Your task to perform on an android device: toggle location history Image 0: 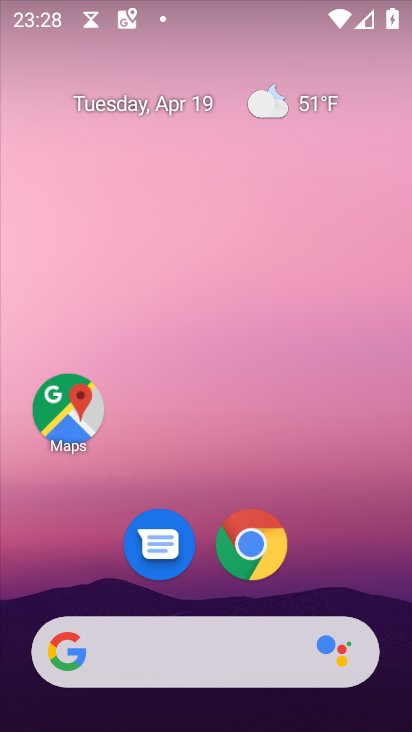
Step 0: drag from (324, 594) to (259, 48)
Your task to perform on an android device: toggle location history Image 1: 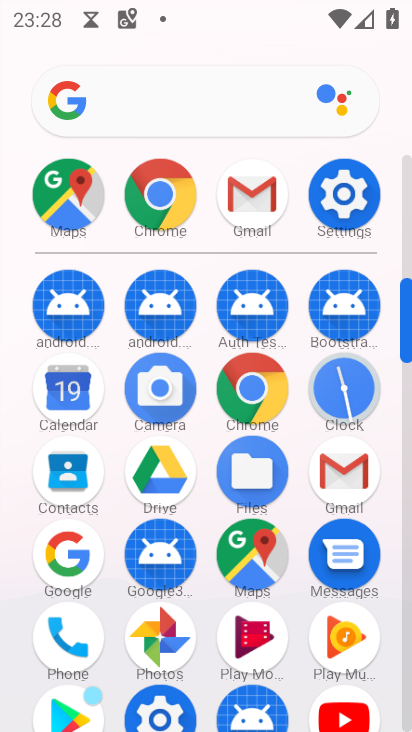
Step 1: click (342, 205)
Your task to perform on an android device: toggle location history Image 2: 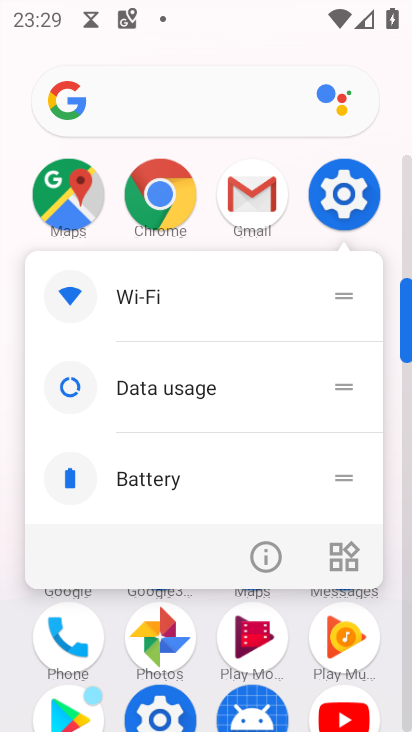
Step 2: click (343, 204)
Your task to perform on an android device: toggle location history Image 3: 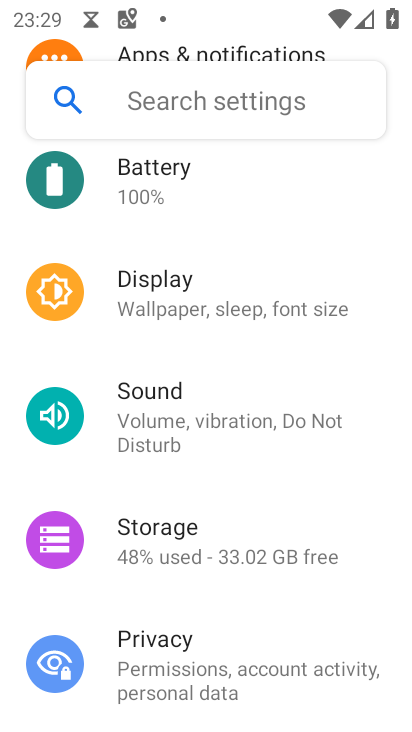
Step 3: drag from (231, 334) to (270, 430)
Your task to perform on an android device: toggle location history Image 4: 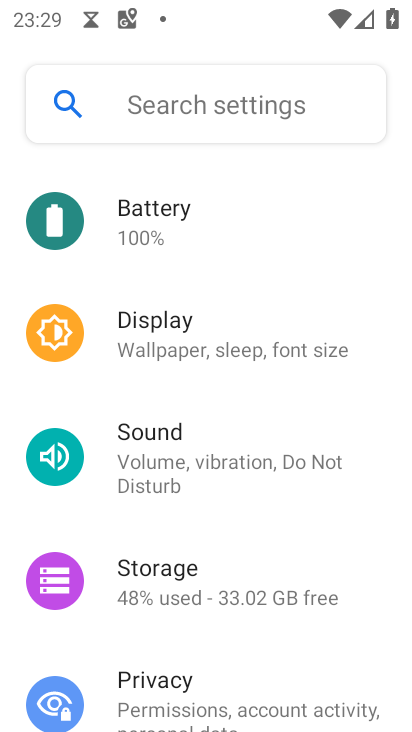
Step 4: drag from (235, 427) to (251, 302)
Your task to perform on an android device: toggle location history Image 5: 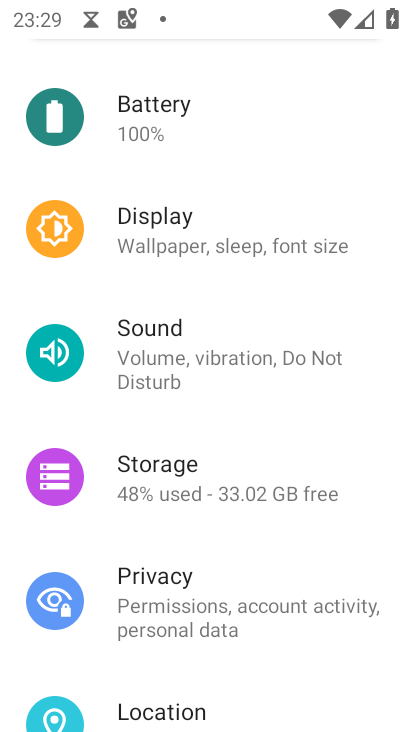
Step 5: drag from (261, 445) to (279, 315)
Your task to perform on an android device: toggle location history Image 6: 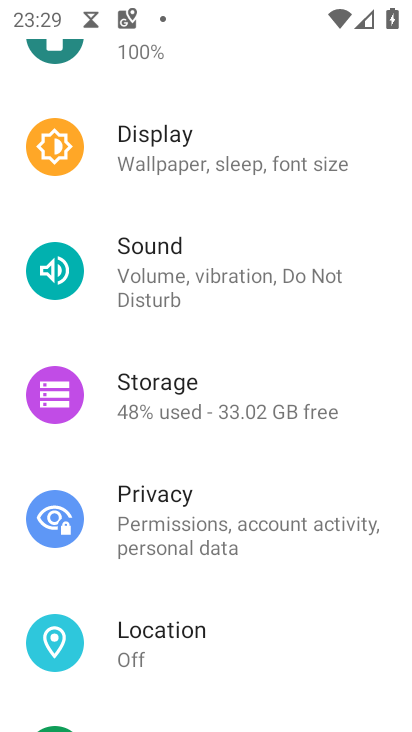
Step 6: drag from (251, 464) to (266, 370)
Your task to perform on an android device: toggle location history Image 7: 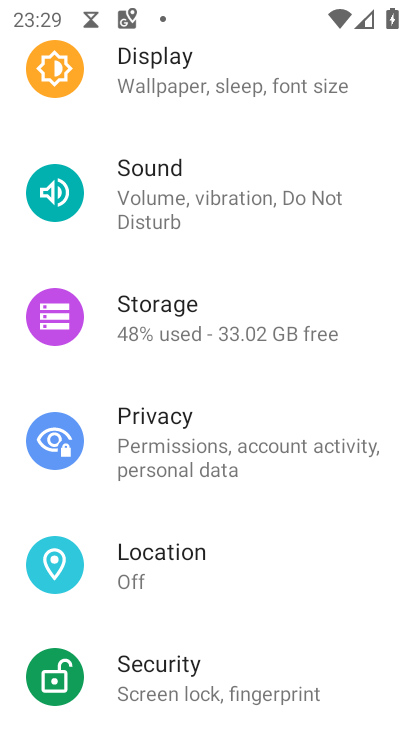
Step 7: click (207, 572)
Your task to perform on an android device: toggle location history Image 8: 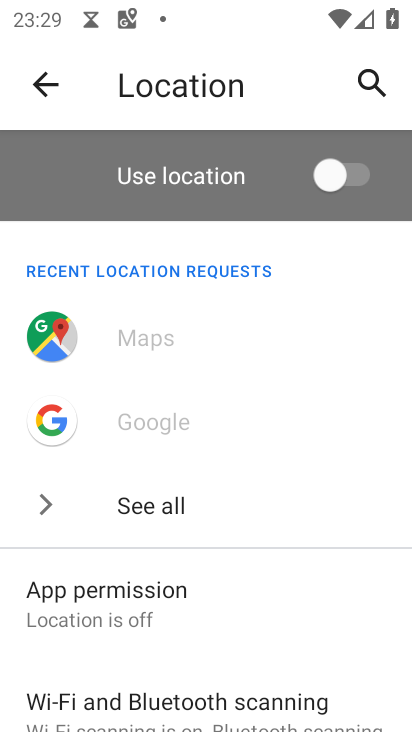
Step 8: drag from (220, 585) to (273, 413)
Your task to perform on an android device: toggle location history Image 9: 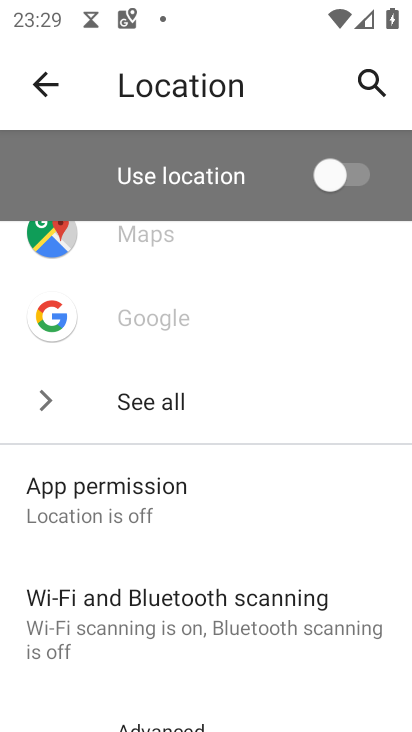
Step 9: drag from (194, 551) to (232, 418)
Your task to perform on an android device: toggle location history Image 10: 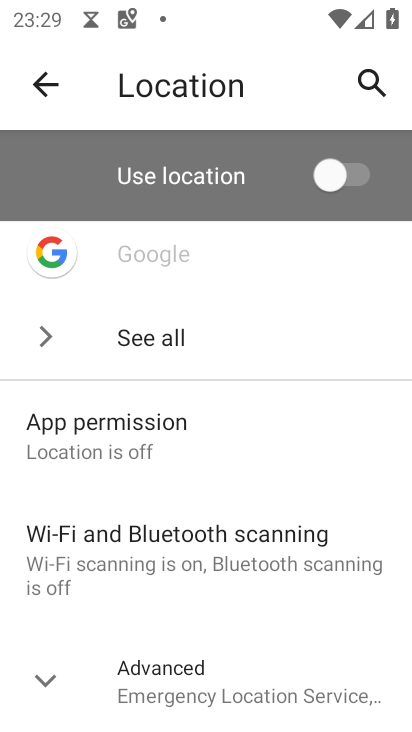
Step 10: click (181, 689)
Your task to perform on an android device: toggle location history Image 11: 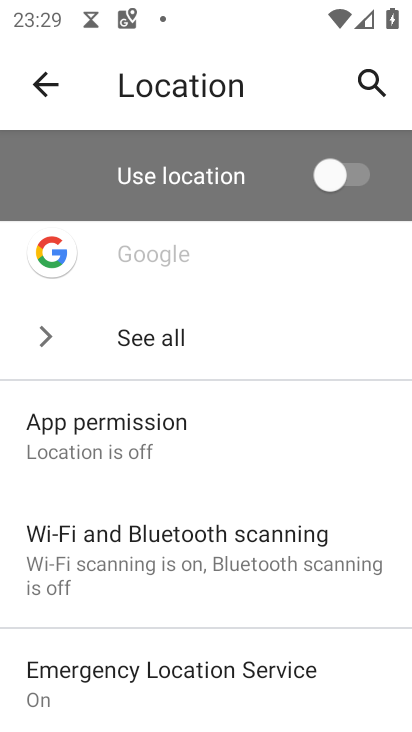
Step 11: drag from (196, 650) to (210, 552)
Your task to perform on an android device: toggle location history Image 12: 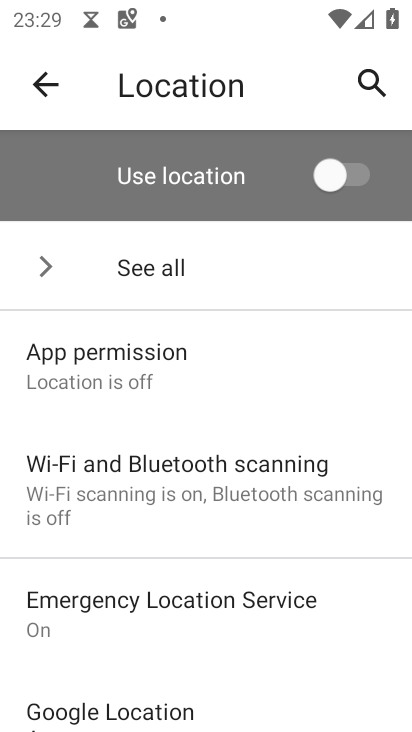
Step 12: drag from (222, 604) to (251, 489)
Your task to perform on an android device: toggle location history Image 13: 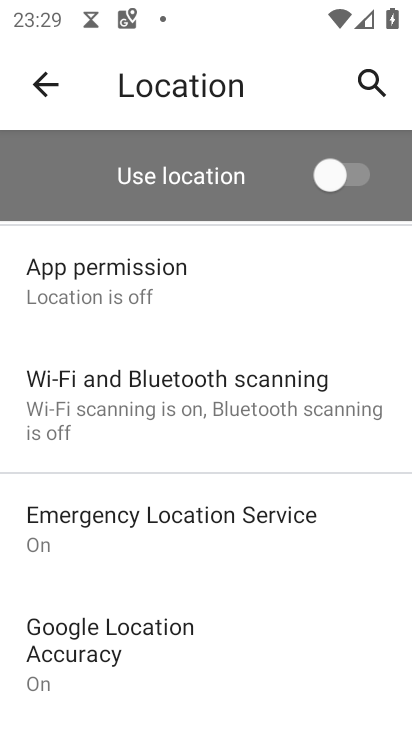
Step 13: drag from (254, 549) to (272, 442)
Your task to perform on an android device: toggle location history Image 14: 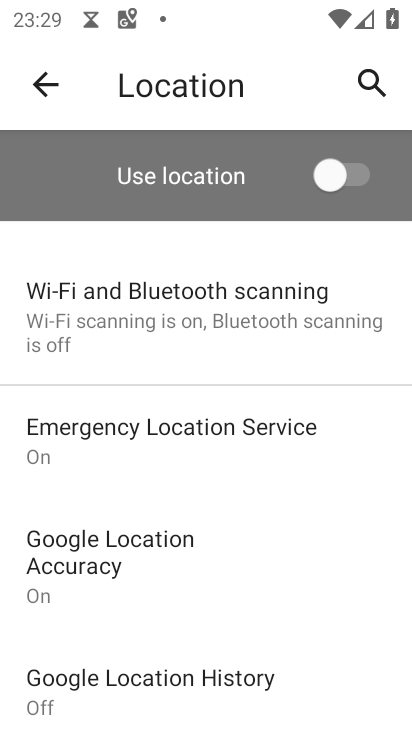
Step 14: click (223, 692)
Your task to perform on an android device: toggle location history Image 15: 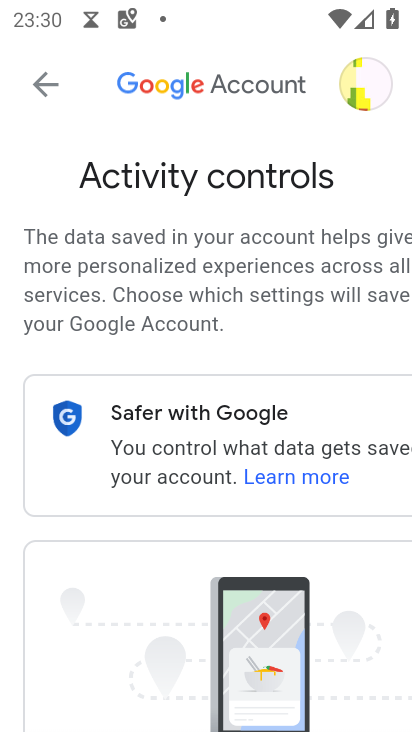
Step 15: drag from (153, 628) to (196, 438)
Your task to perform on an android device: toggle location history Image 16: 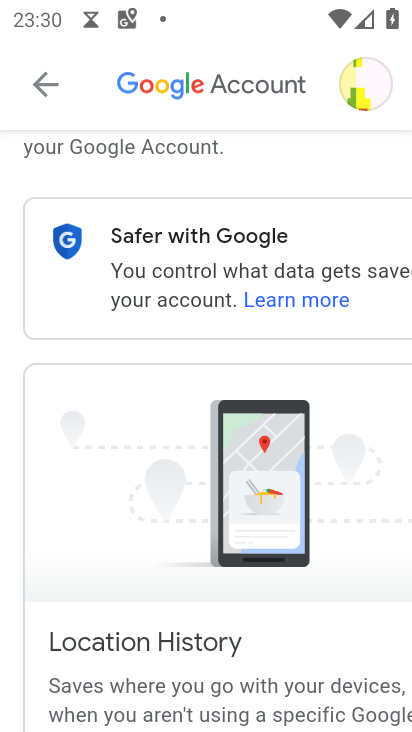
Step 16: drag from (187, 602) to (216, 461)
Your task to perform on an android device: toggle location history Image 17: 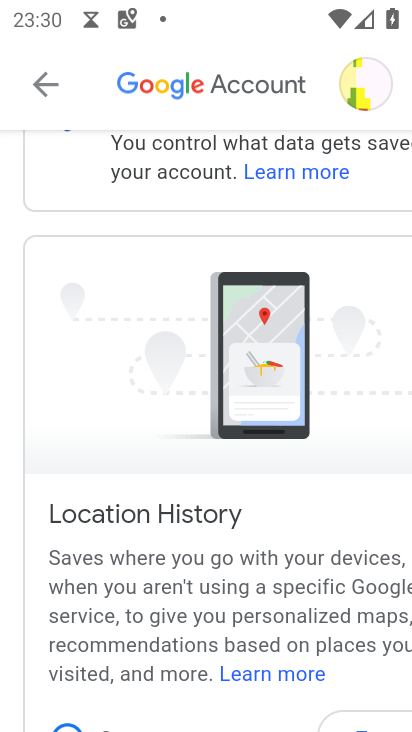
Step 17: drag from (224, 636) to (245, 525)
Your task to perform on an android device: toggle location history Image 18: 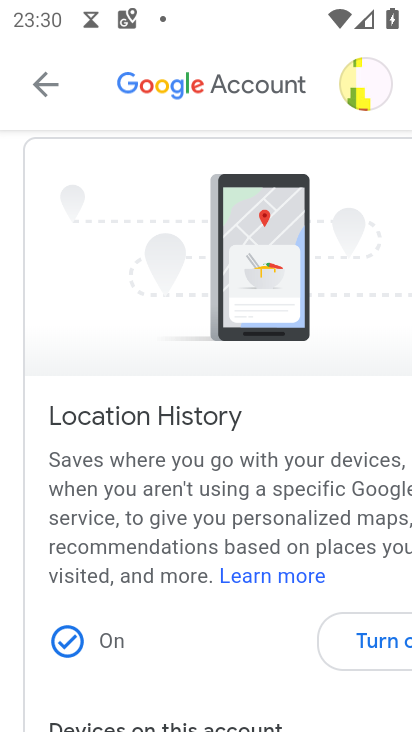
Step 18: click (367, 643)
Your task to perform on an android device: toggle location history Image 19: 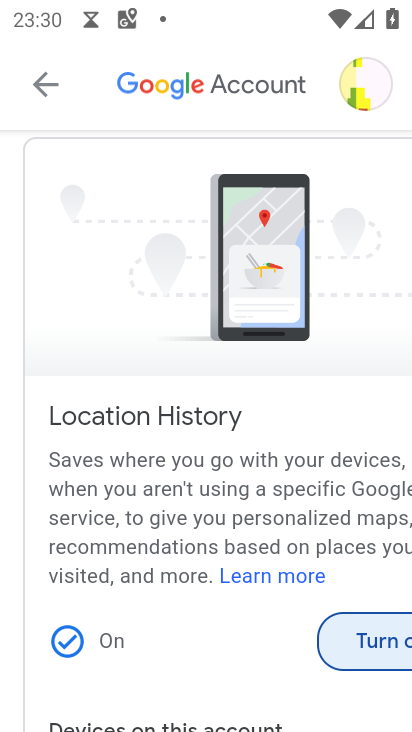
Step 19: click (368, 647)
Your task to perform on an android device: toggle location history Image 20: 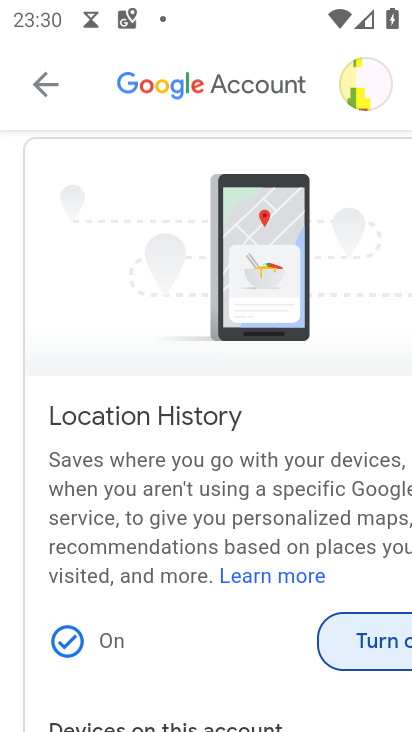
Step 20: click (371, 649)
Your task to perform on an android device: toggle location history Image 21: 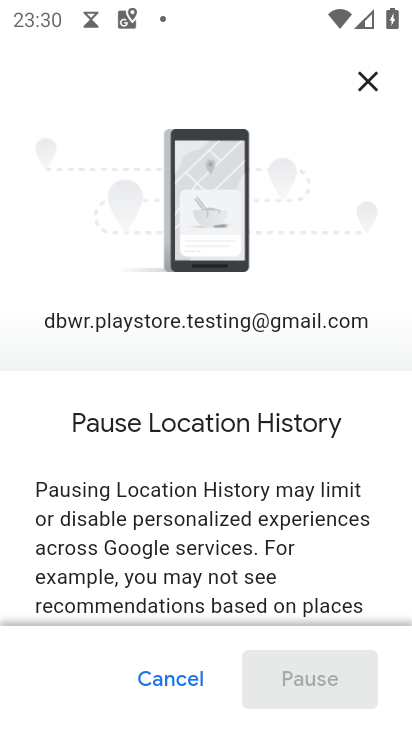
Step 21: drag from (311, 590) to (314, 409)
Your task to perform on an android device: toggle location history Image 22: 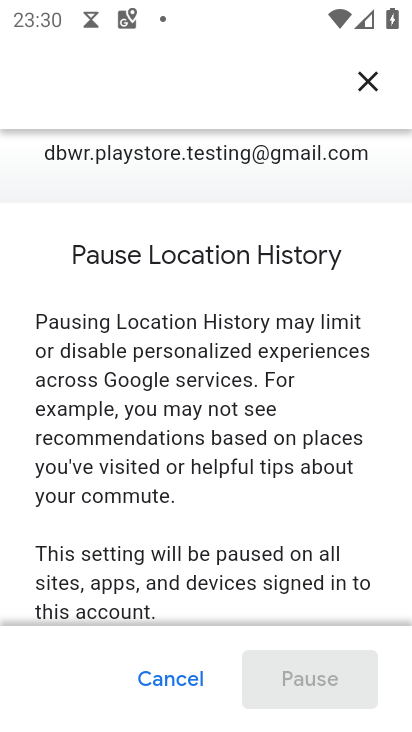
Step 22: drag from (265, 590) to (278, 332)
Your task to perform on an android device: toggle location history Image 23: 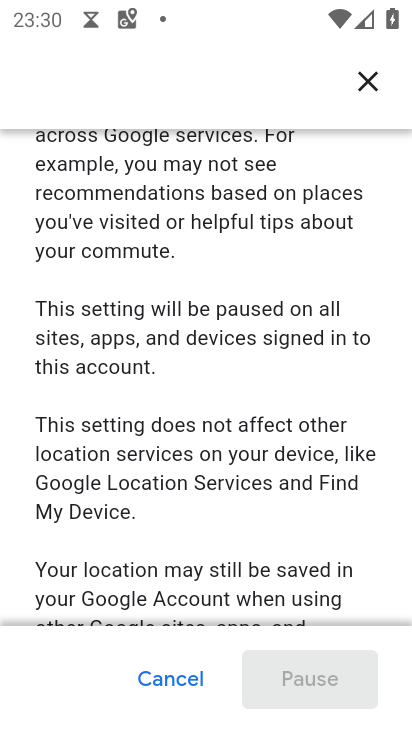
Step 23: drag from (267, 564) to (272, 395)
Your task to perform on an android device: toggle location history Image 24: 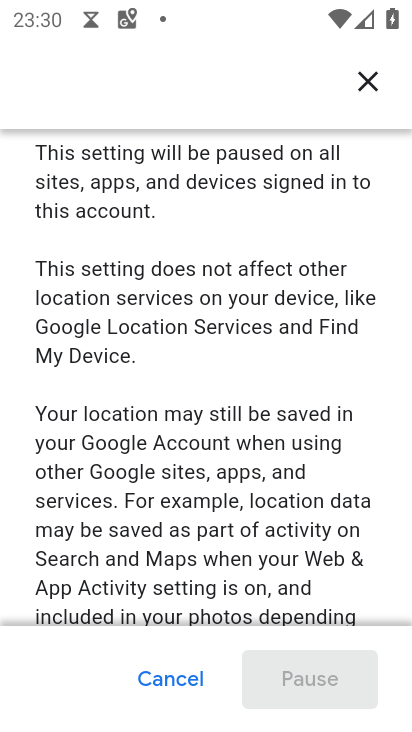
Step 24: drag from (267, 587) to (298, 390)
Your task to perform on an android device: toggle location history Image 25: 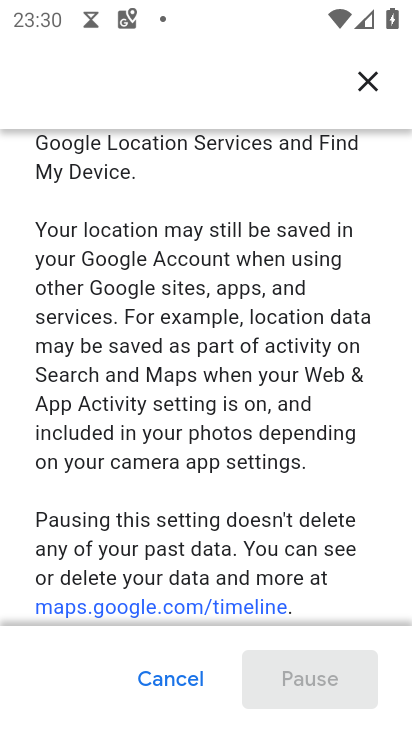
Step 25: drag from (275, 605) to (329, 468)
Your task to perform on an android device: toggle location history Image 26: 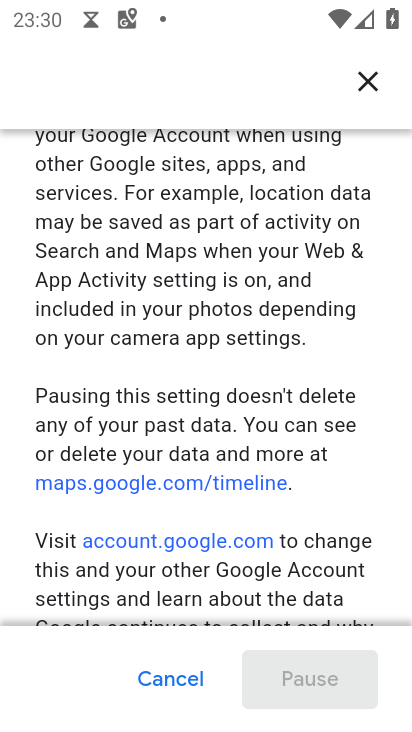
Step 26: drag from (316, 581) to (336, 447)
Your task to perform on an android device: toggle location history Image 27: 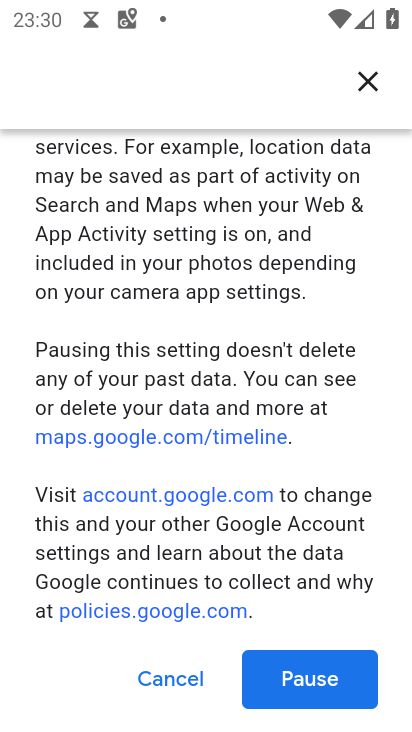
Step 27: click (338, 688)
Your task to perform on an android device: toggle location history Image 28: 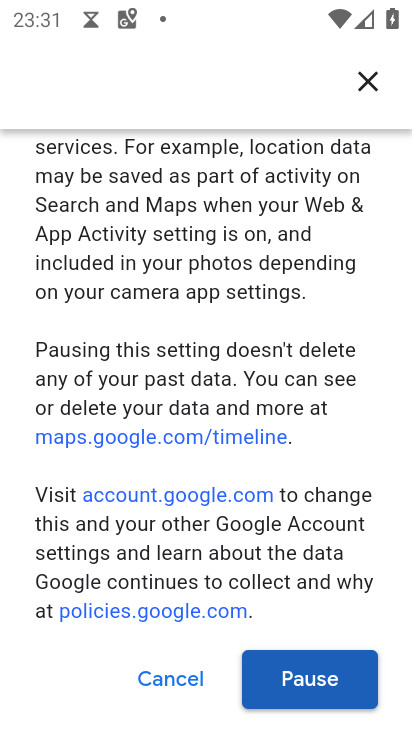
Step 28: click (349, 688)
Your task to perform on an android device: toggle location history Image 29: 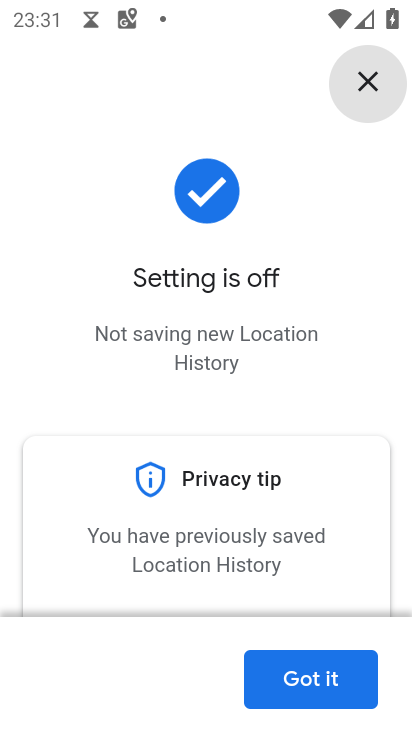
Step 29: click (327, 687)
Your task to perform on an android device: toggle location history Image 30: 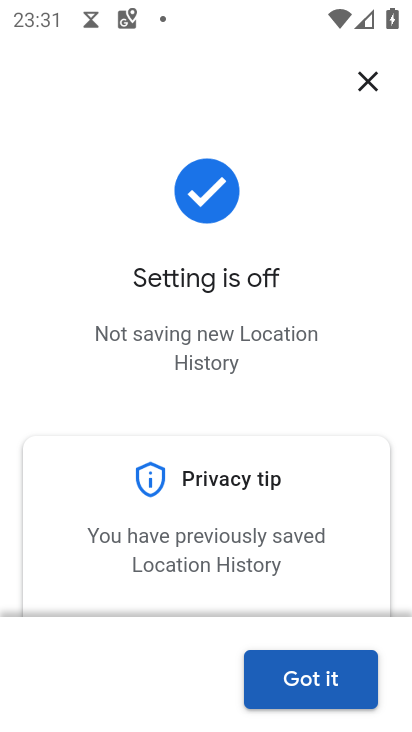
Step 30: click (328, 684)
Your task to perform on an android device: toggle location history Image 31: 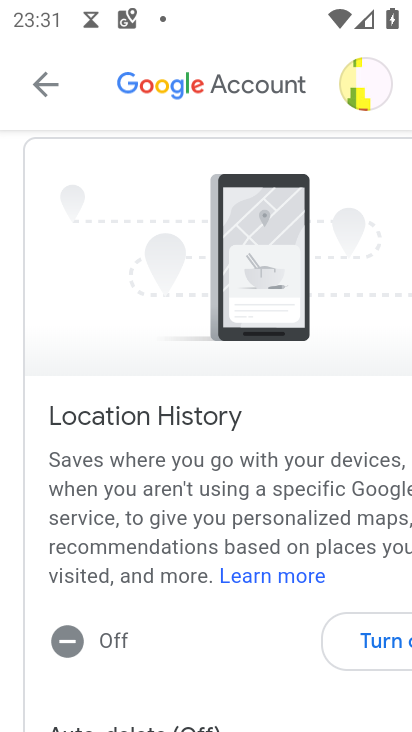
Step 31: task complete